Your task to perform on an android device: open app "Lyft - Rideshare, Bikes, Scooters & Transit" Image 0: 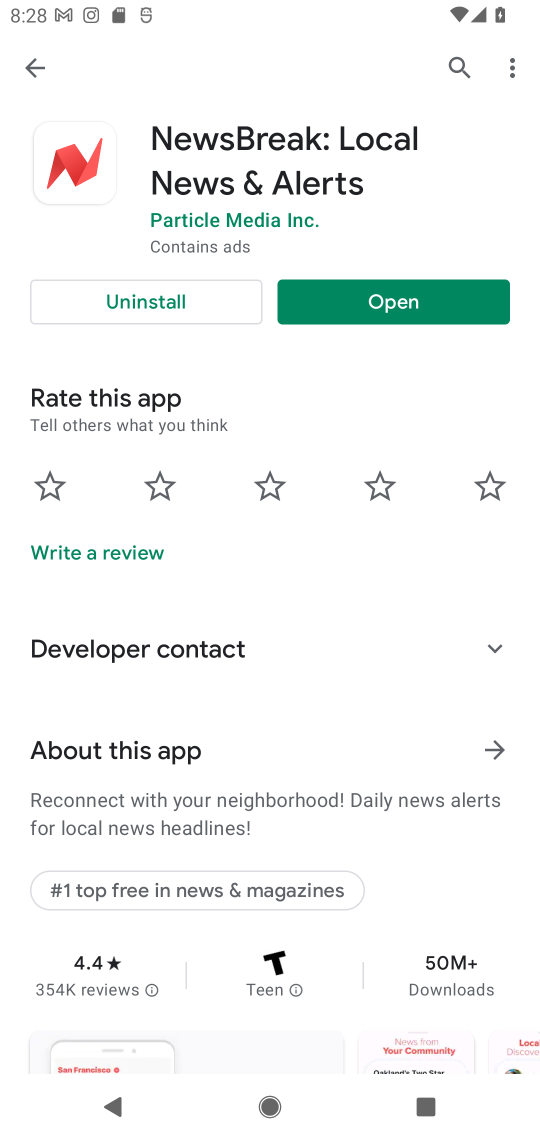
Step 0: press home button
Your task to perform on an android device: open app "Lyft - Rideshare, Bikes, Scooters & Transit" Image 1: 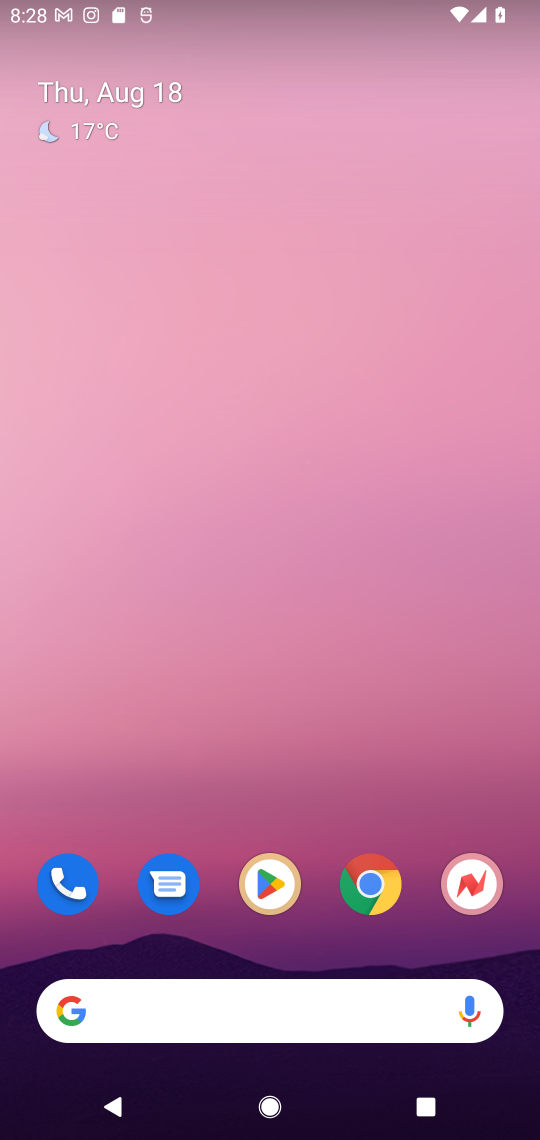
Step 1: drag from (191, 1031) to (300, 222)
Your task to perform on an android device: open app "Lyft - Rideshare, Bikes, Scooters & Transit" Image 2: 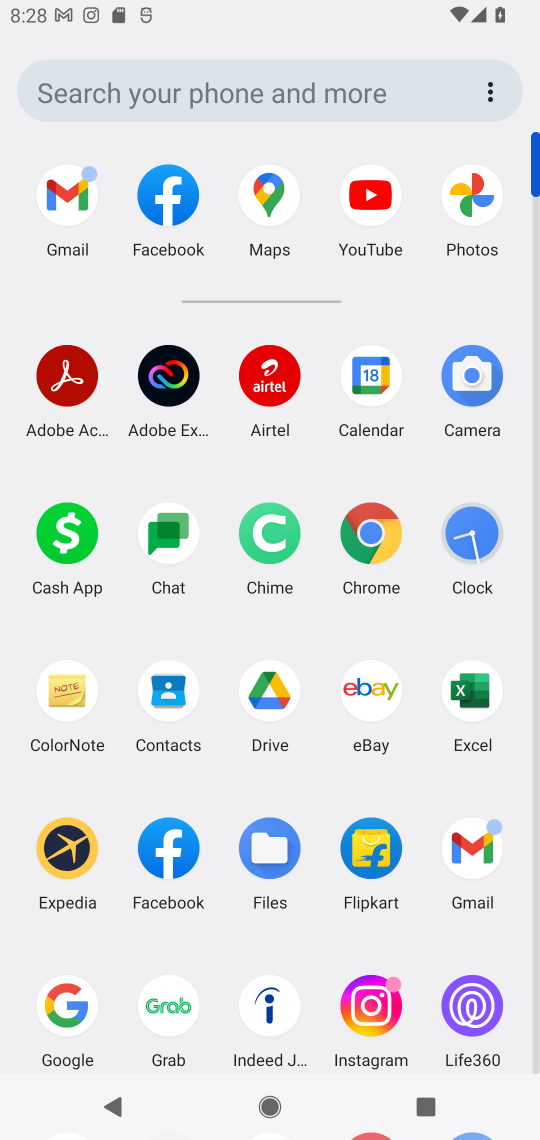
Step 2: drag from (326, 803) to (328, 304)
Your task to perform on an android device: open app "Lyft - Rideshare, Bikes, Scooters & Transit" Image 3: 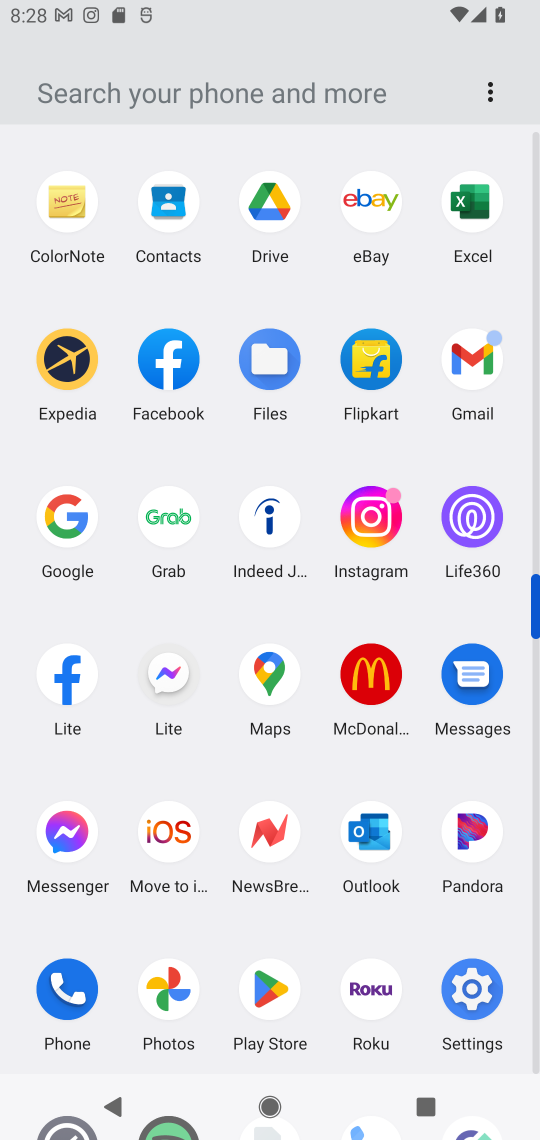
Step 3: click (268, 984)
Your task to perform on an android device: open app "Lyft - Rideshare, Bikes, Scooters & Transit" Image 4: 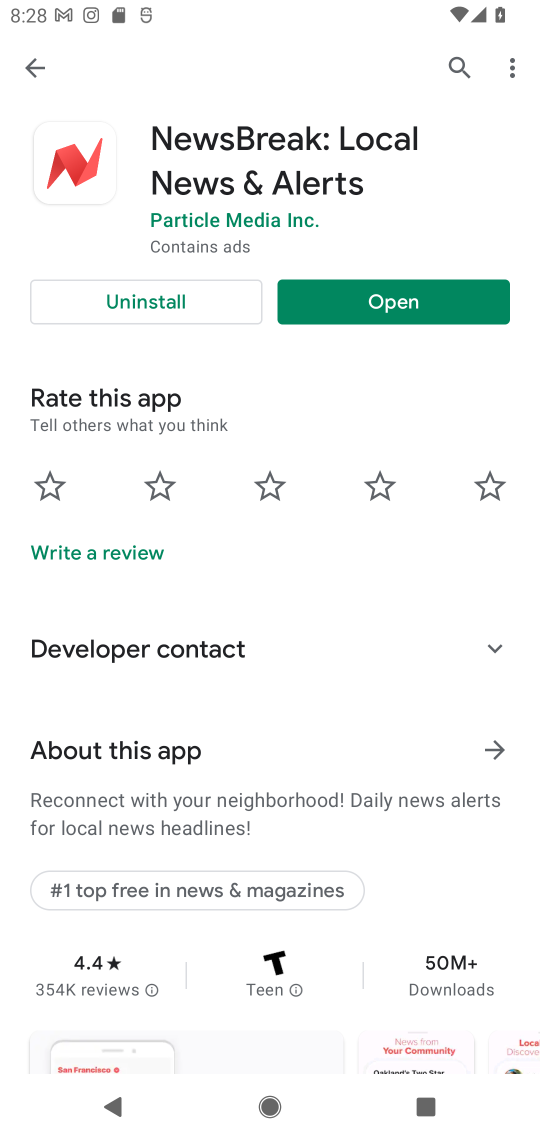
Step 4: press back button
Your task to perform on an android device: open app "Lyft - Rideshare, Bikes, Scooters & Transit" Image 5: 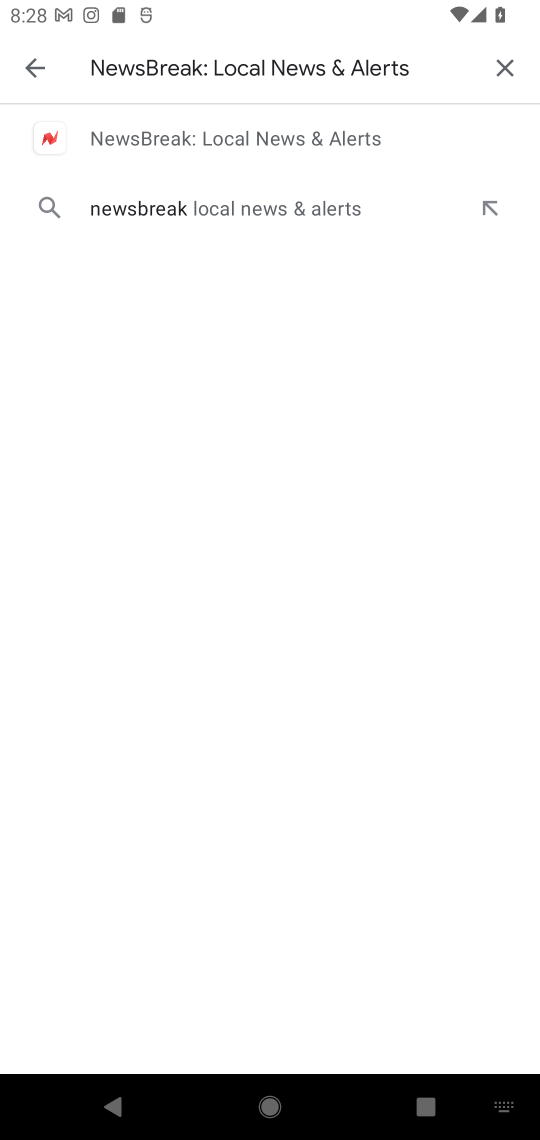
Step 5: press back button
Your task to perform on an android device: open app "Lyft - Rideshare, Bikes, Scooters & Transit" Image 6: 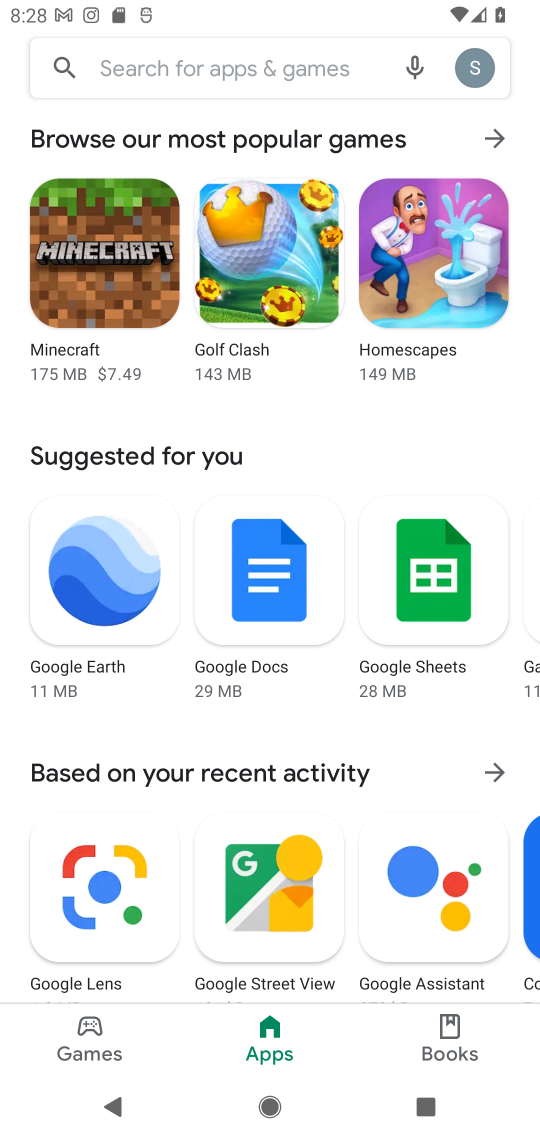
Step 6: click (278, 72)
Your task to perform on an android device: open app "Lyft - Rideshare, Bikes, Scooters & Transit" Image 7: 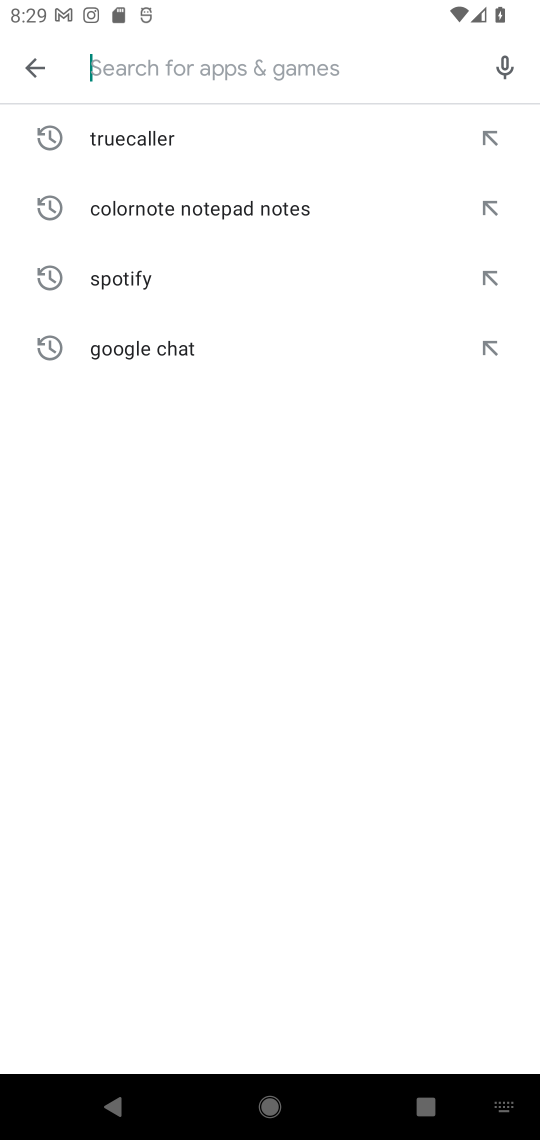
Step 7: type "Lyft - Rideshare, Bikes, Scooters & Transit"
Your task to perform on an android device: open app "Lyft - Rideshare, Bikes, Scooters & Transit" Image 8: 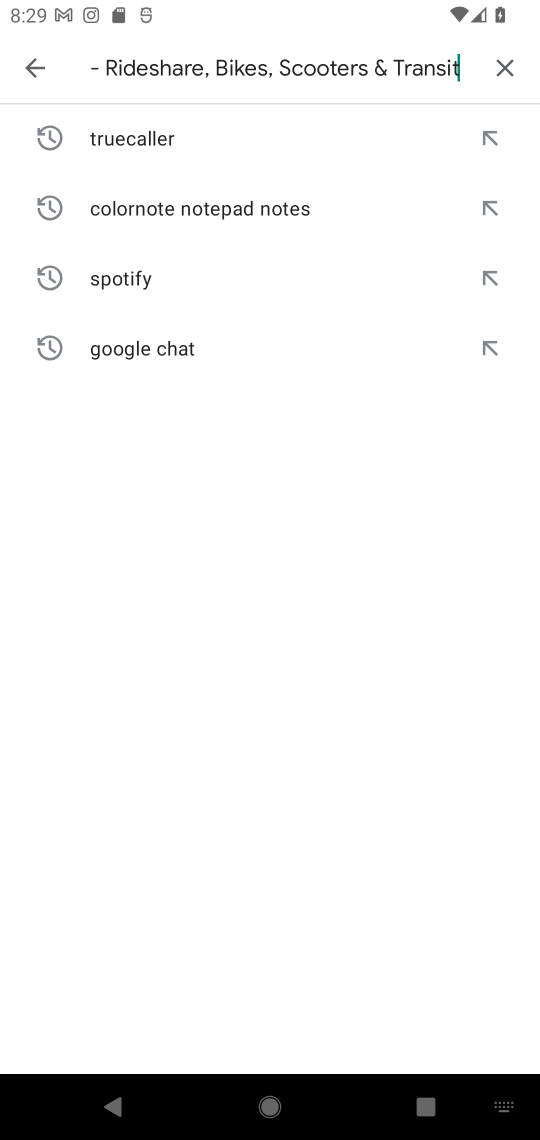
Step 8: type ""
Your task to perform on an android device: open app "Lyft - Rideshare, Bikes, Scooters & Transit" Image 9: 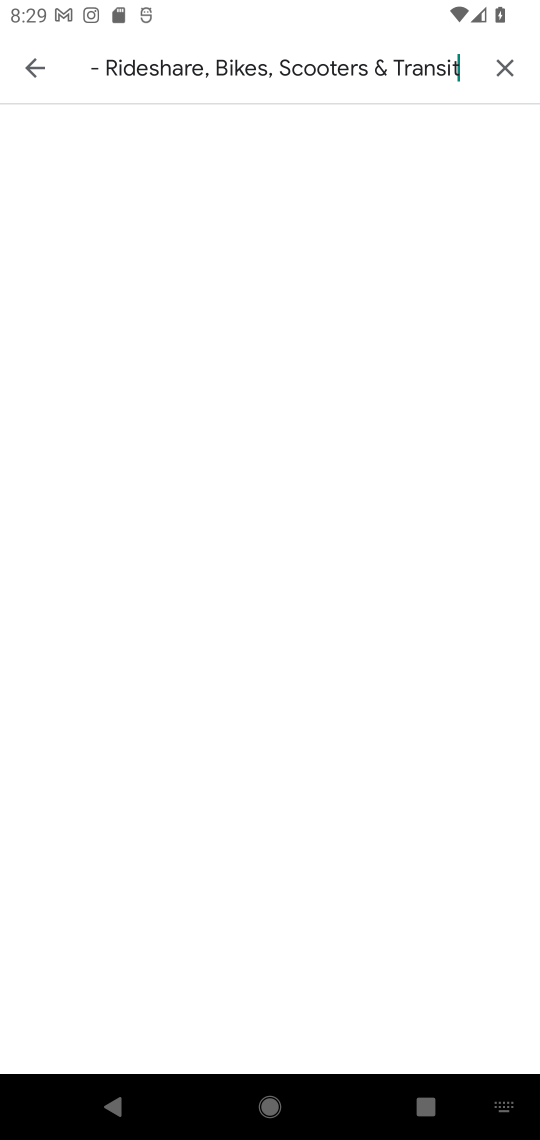
Step 9: press back button
Your task to perform on an android device: open app "Lyft - Rideshare, Bikes, Scooters & Transit" Image 10: 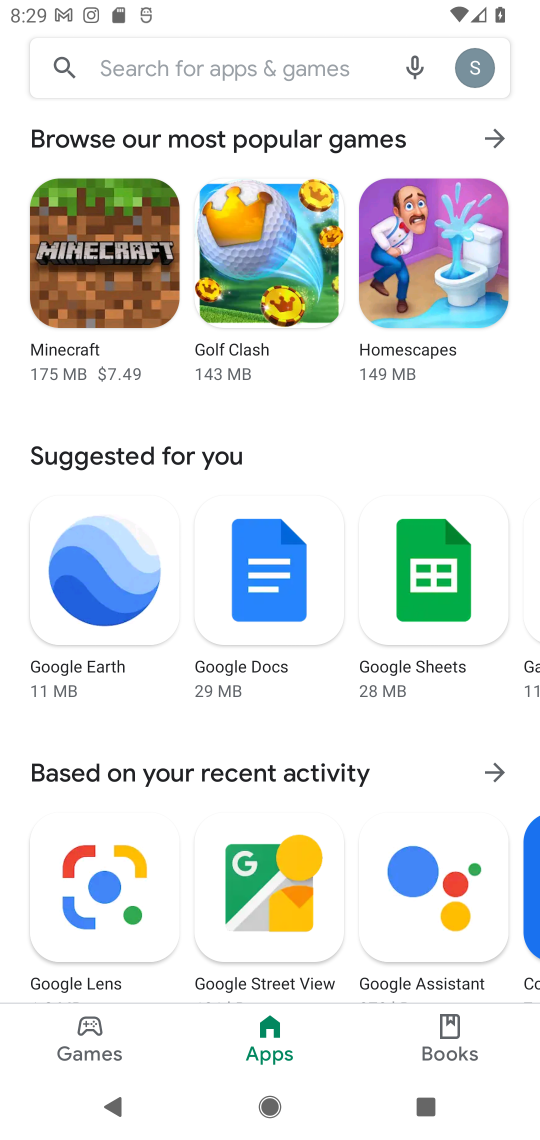
Step 10: click (272, 64)
Your task to perform on an android device: open app "Lyft - Rideshare, Bikes, Scooters & Transit" Image 11: 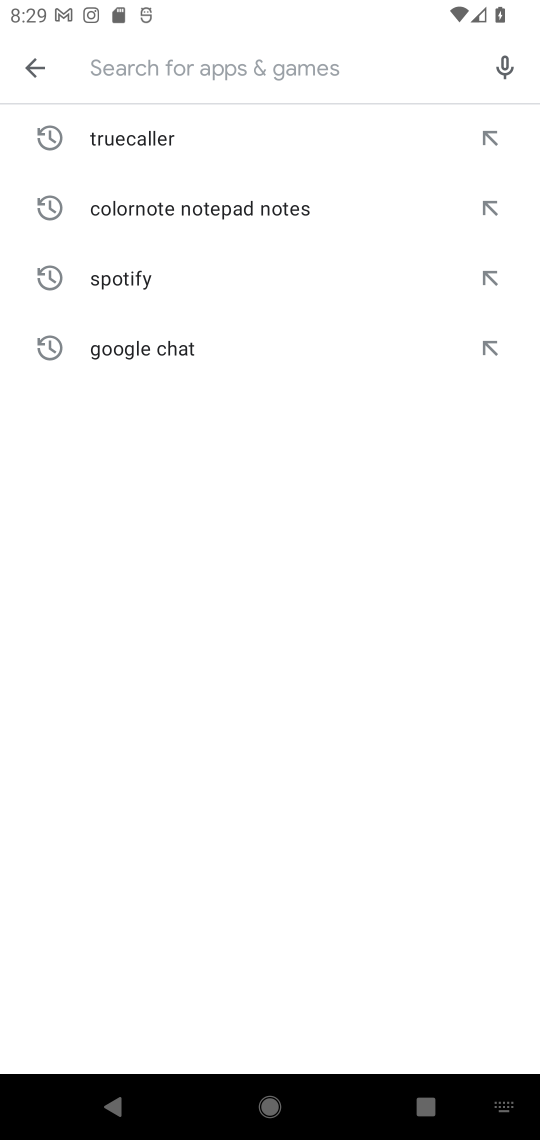
Step 11: type "Lyft "
Your task to perform on an android device: open app "Lyft - Rideshare, Bikes, Scooters & Transit" Image 12: 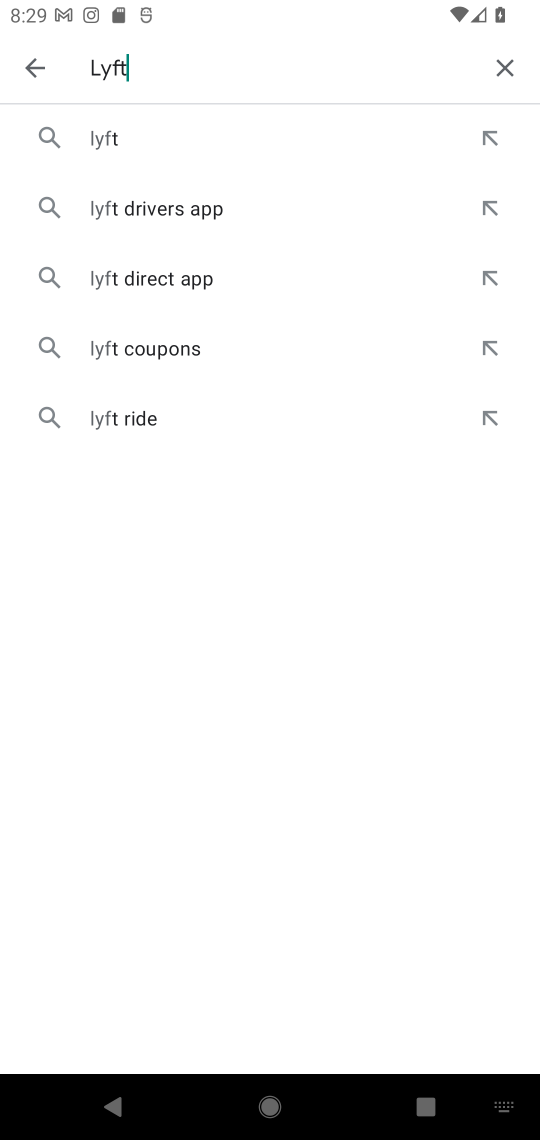
Step 12: type ""
Your task to perform on an android device: open app "Lyft - Rideshare, Bikes, Scooters & Transit" Image 13: 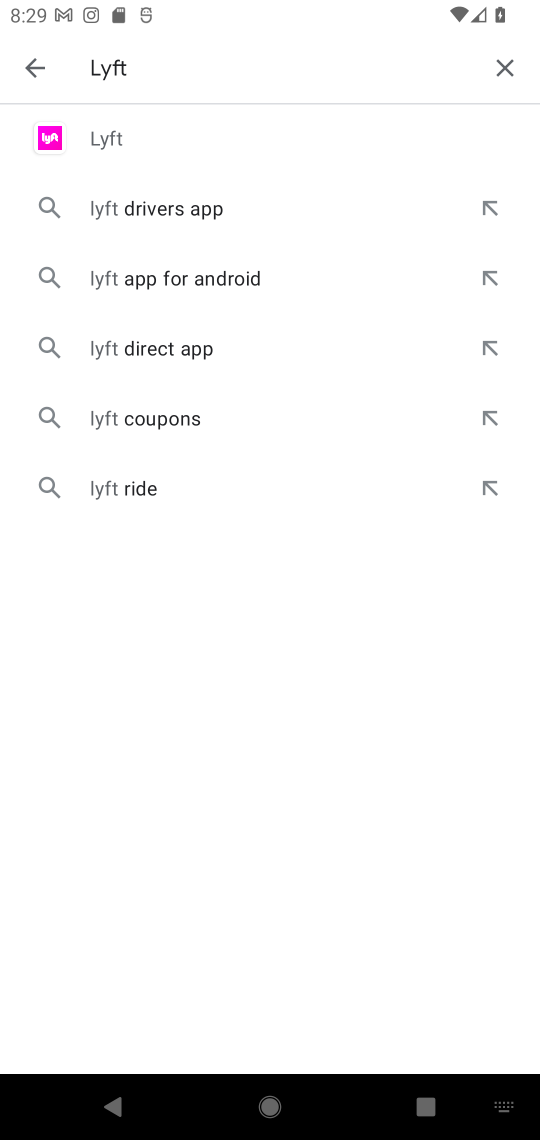
Step 13: click (150, 140)
Your task to perform on an android device: open app "Lyft - Rideshare, Bikes, Scooters & Transit" Image 14: 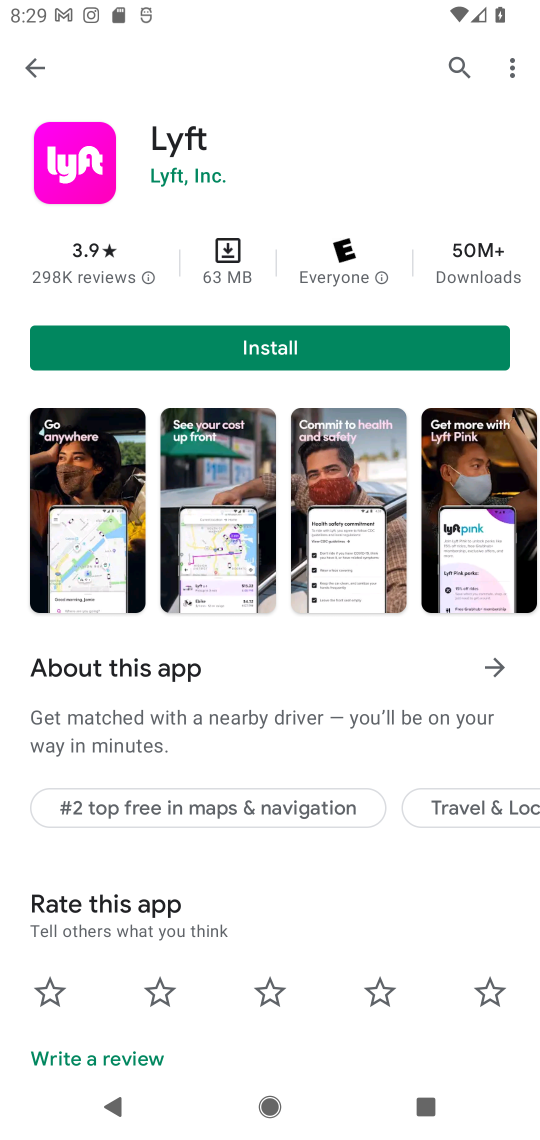
Step 14: click (195, 149)
Your task to perform on an android device: open app "Lyft - Rideshare, Bikes, Scooters & Transit" Image 15: 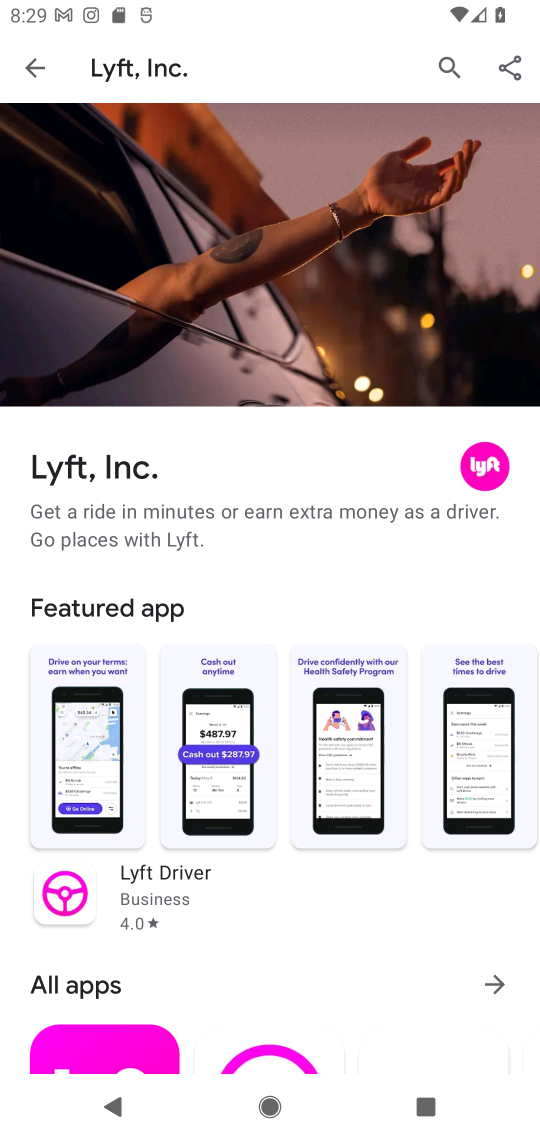
Step 15: drag from (295, 923) to (329, 536)
Your task to perform on an android device: open app "Lyft - Rideshare, Bikes, Scooters & Transit" Image 16: 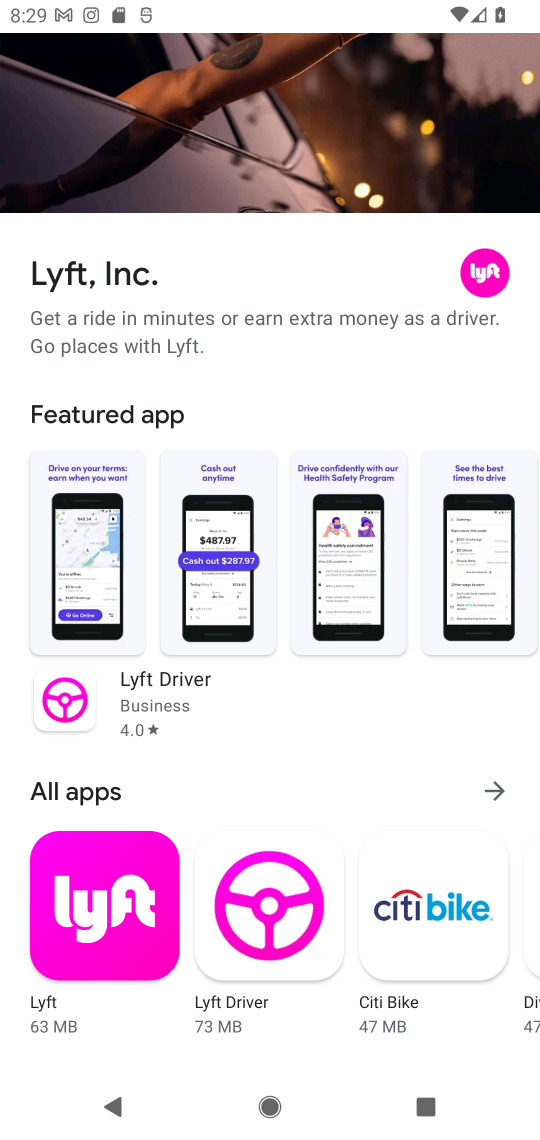
Step 16: drag from (341, 851) to (369, 607)
Your task to perform on an android device: open app "Lyft - Rideshare, Bikes, Scooters & Transit" Image 17: 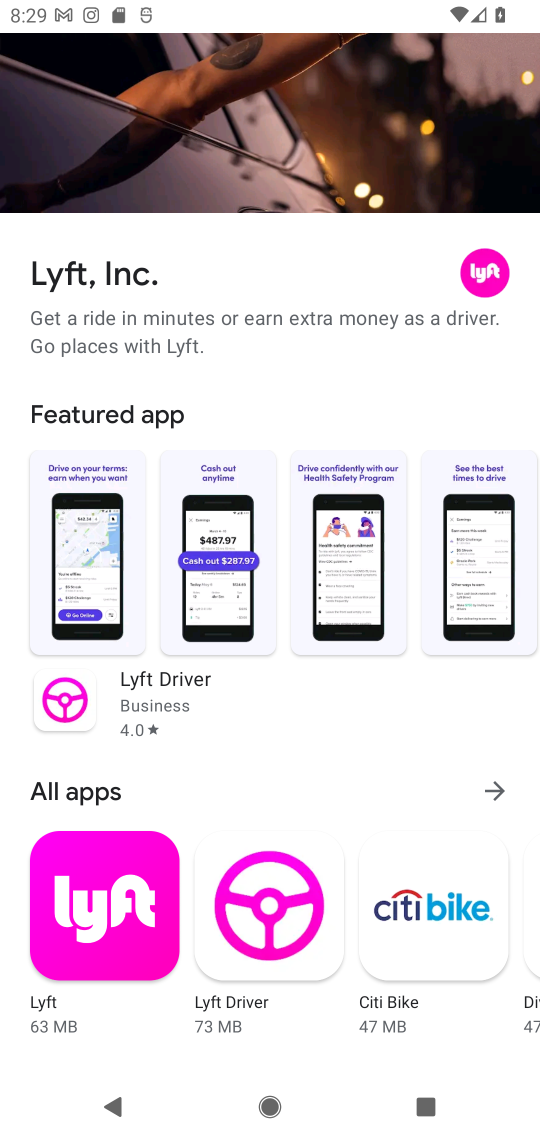
Step 17: drag from (369, 605) to (463, 964)
Your task to perform on an android device: open app "Lyft - Rideshare, Bikes, Scooters & Transit" Image 18: 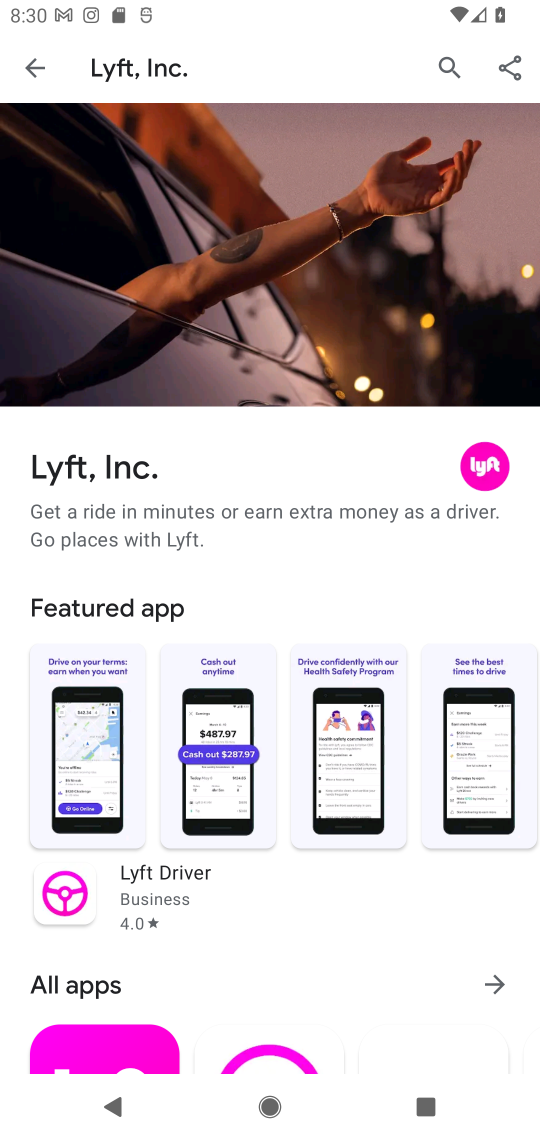
Step 18: drag from (198, 986) to (271, 713)
Your task to perform on an android device: open app "Lyft - Rideshare, Bikes, Scooters & Transit" Image 19: 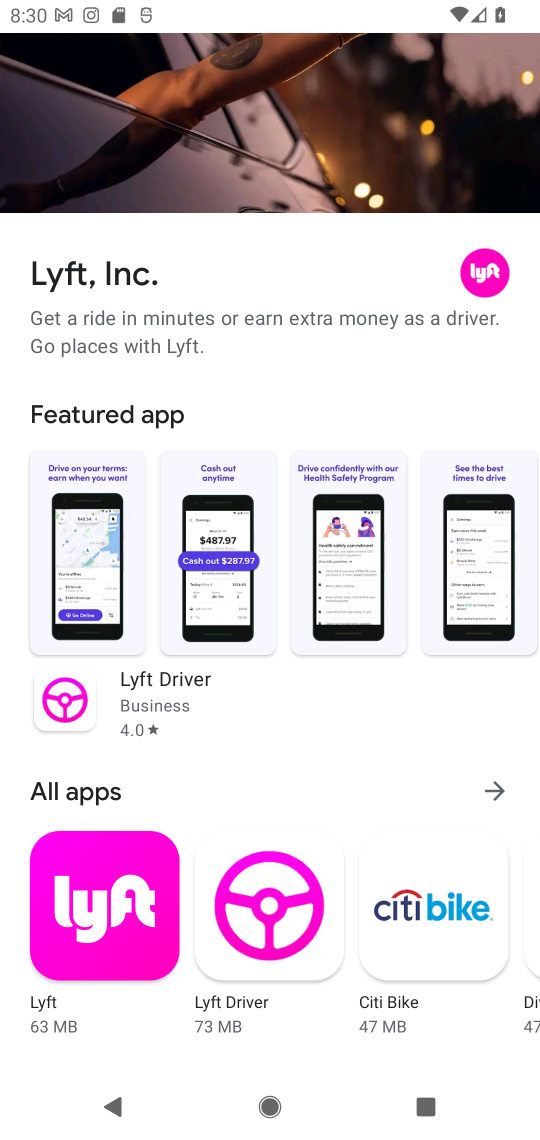
Step 19: click (134, 903)
Your task to perform on an android device: open app "Lyft - Rideshare, Bikes, Scooters & Transit" Image 20: 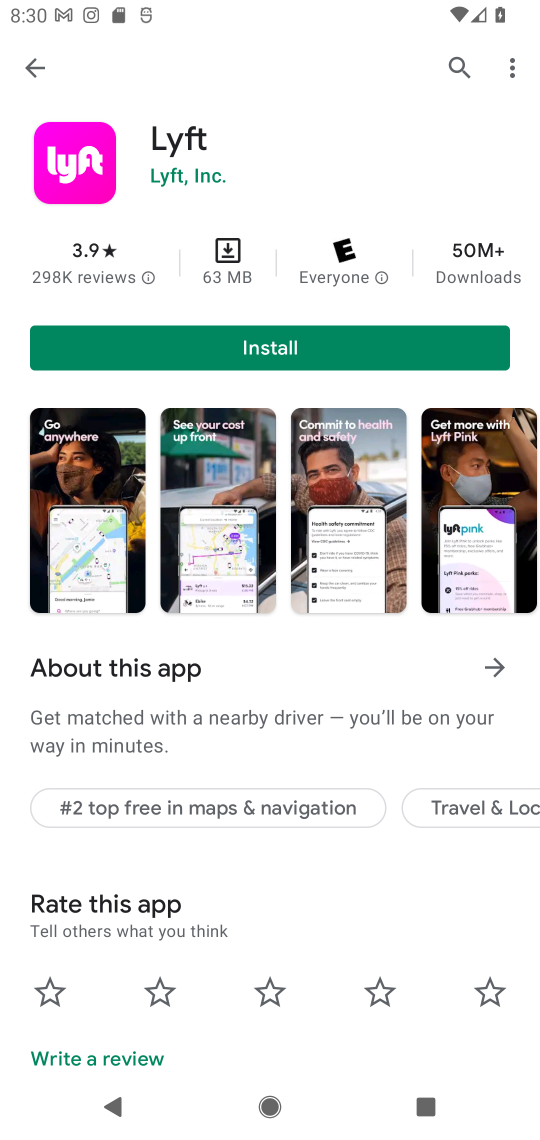
Step 20: task complete